Your task to perform on an android device: Show me productivity apps on the Play Store Image 0: 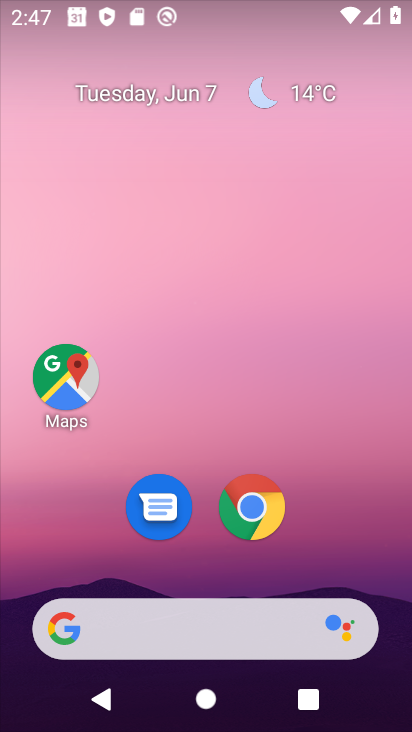
Step 0: drag from (364, 516) to (290, 143)
Your task to perform on an android device: Show me productivity apps on the Play Store Image 1: 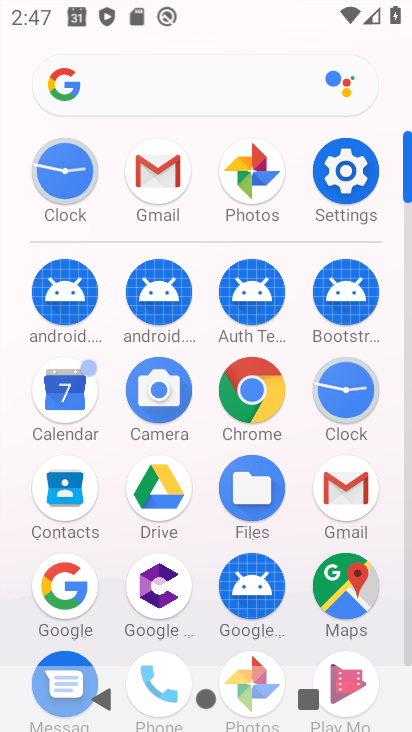
Step 1: drag from (202, 599) to (245, 193)
Your task to perform on an android device: Show me productivity apps on the Play Store Image 2: 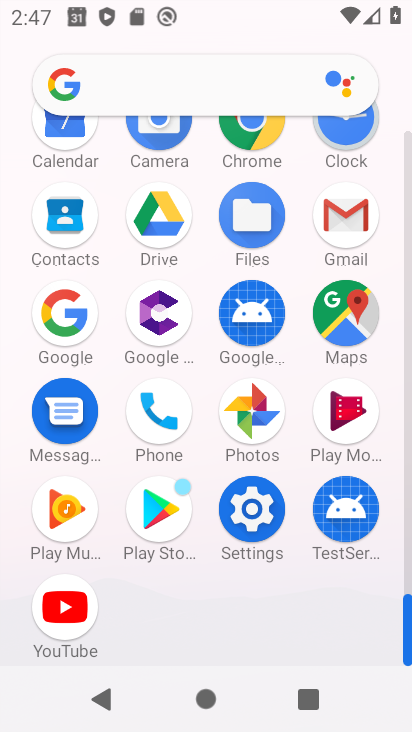
Step 2: click (160, 524)
Your task to perform on an android device: Show me productivity apps on the Play Store Image 3: 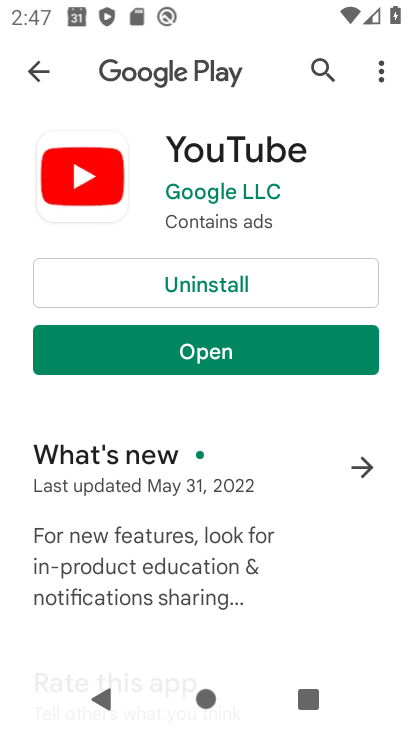
Step 3: click (38, 72)
Your task to perform on an android device: Show me productivity apps on the Play Store Image 4: 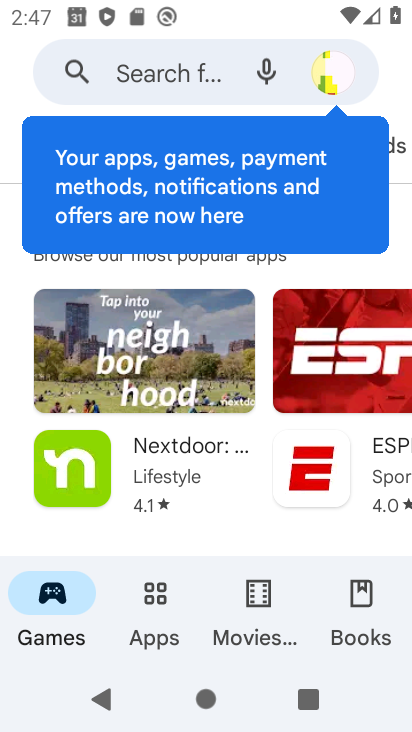
Step 4: click (156, 603)
Your task to perform on an android device: Show me productivity apps on the Play Store Image 5: 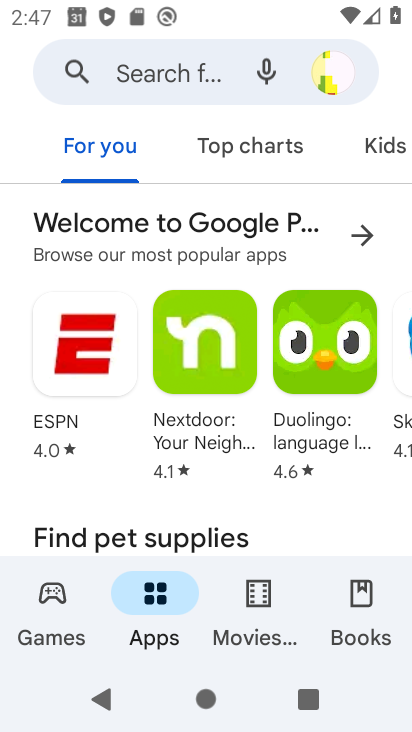
Step 5: drag from (260, 526) to (293, 199)
Your task to perform on an android device: Show me productivity apps on the Play Store Image 6: 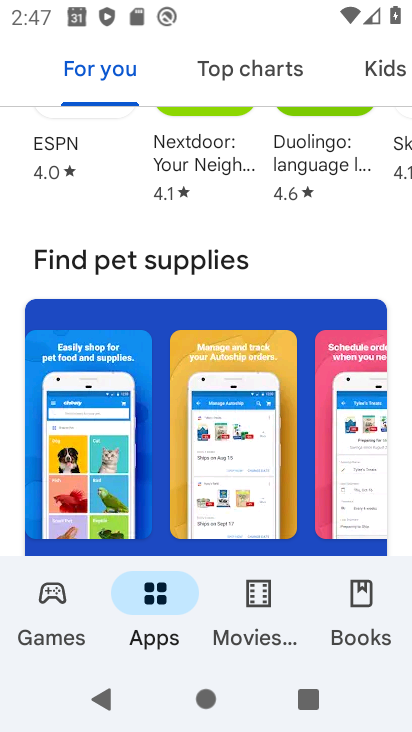
Step 6: click (300, 118)
Your task to perform on an android device: Show me productivity apps on the Play Store Image 7: 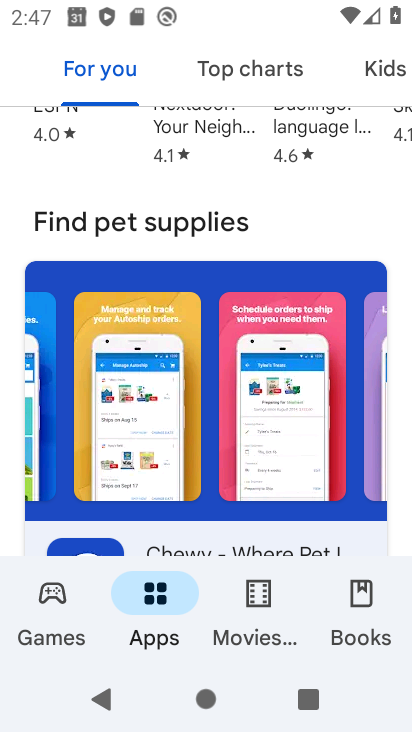
Step 7: task complete